Your task to perform on an android device: open the mobile data screen to see how much data has been used Image 0: 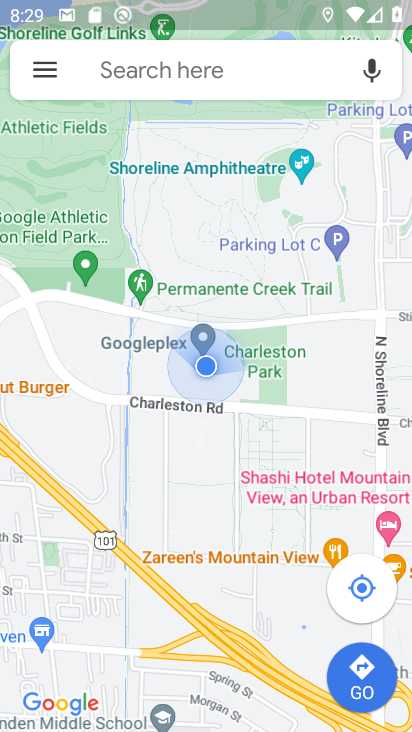
Step 0: press home button
Your task to perform on an android device: open the mobile data screen to see how much data has been used Image 1: 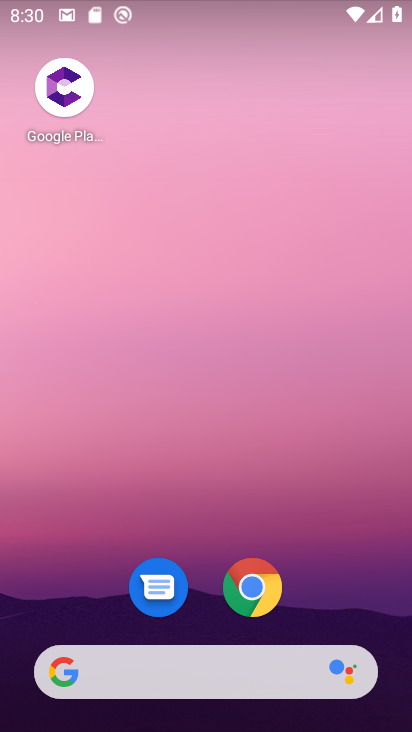
Step 1: drag from (220, 8) to (354, 731)
Your task to perform on an android device: open the mobile data screen to see how much data has been used Image 2: 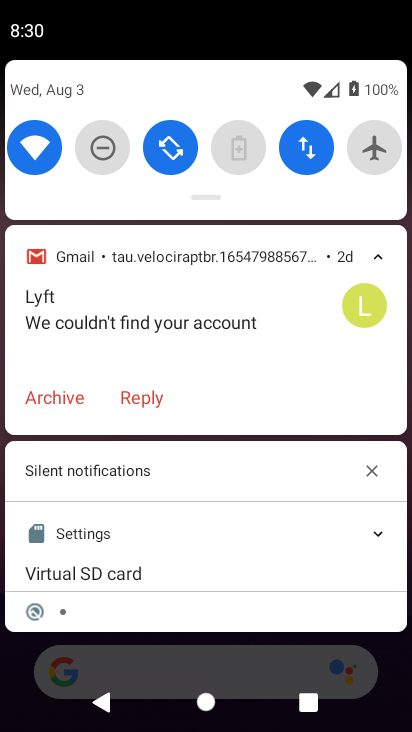
Step 2: click (303, 141)
Your task to perform on an android device: open the mobile data screen to see how much data has been used Image 3: 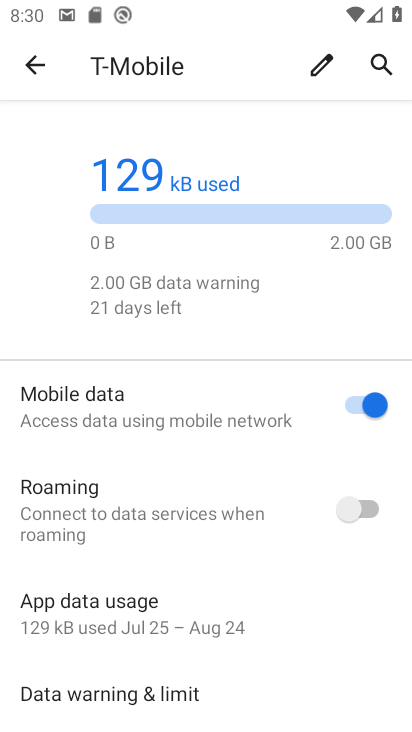
Step 3: task complete